Your task to perform on an android device: Go to location settings Image 0: 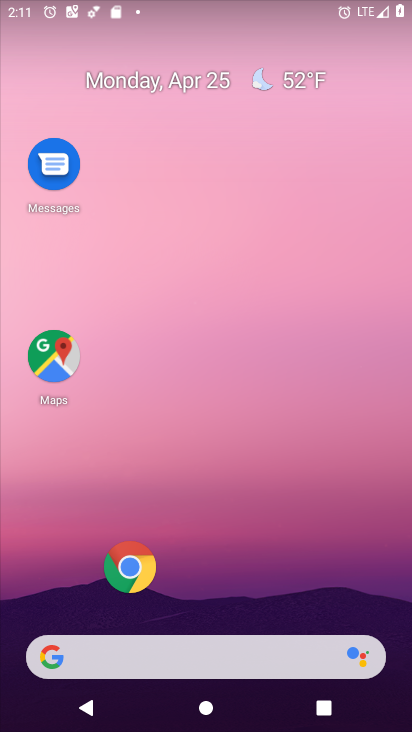
Step 0: drag from (224, 666) to (268, 145)
Your task to perform on an android device: Go to location settings Image 1: 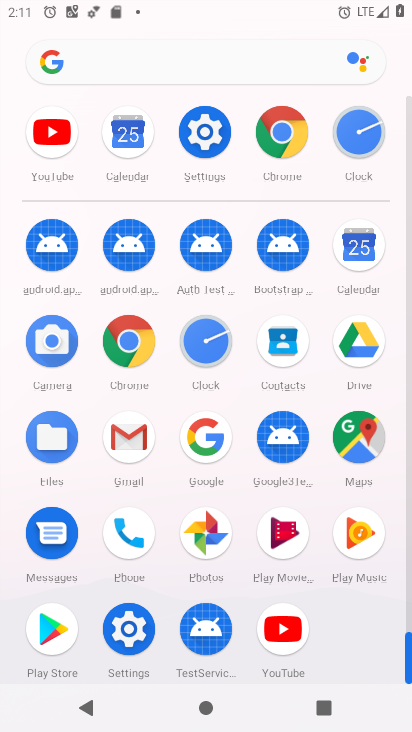
Step 1: click (217, 144)
Your task to perform on an android device: Go to location settings Image 2: 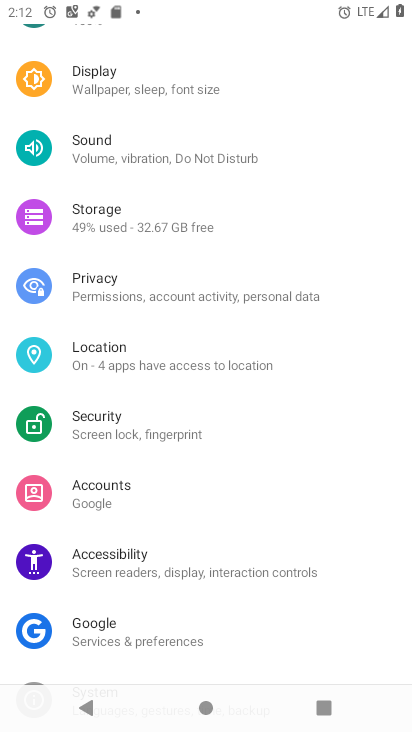
Step 2: drag from (160, 564) to (250, 211)
Your task to perform on an android device: Go to location settings Image 3: 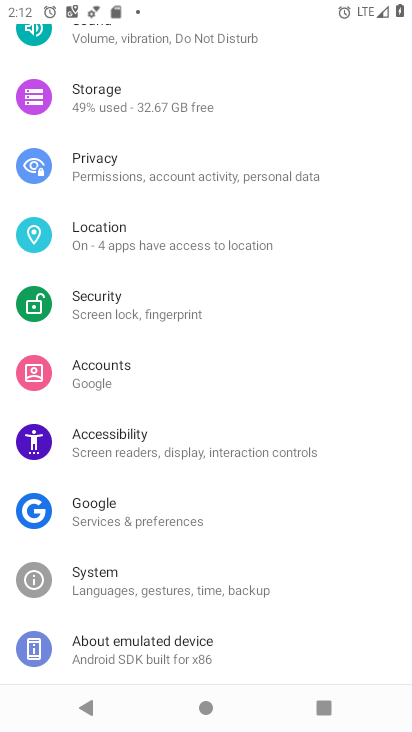
Step 3: click (202, 220)
Your task to perform on an android device: Go to location settings Image 4: 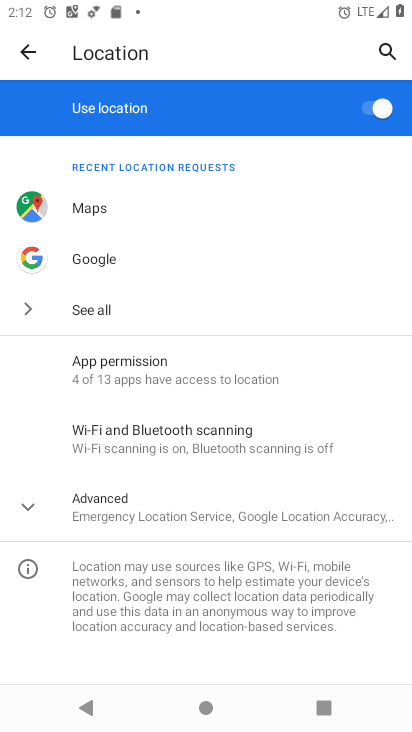
Step 4: task complete